Your task to perform on an android device: Turn off the flashlight Image 0: 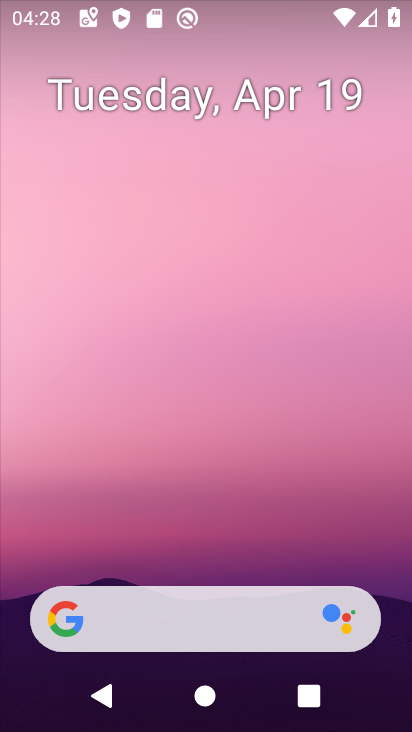
Step 0: drag from (248, 547) to (277, 196)
Your task to perform on an android device: Turn off the flashlight Image 1: 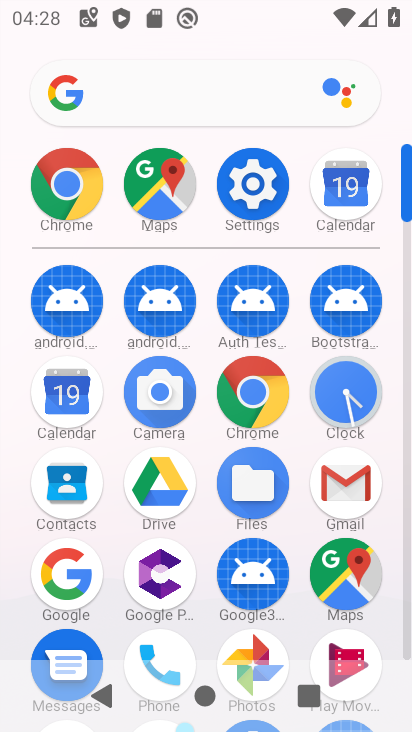
Step 1: click (260, 179)
Your task to perform on an android device: Turn off the flashlight Image 2: 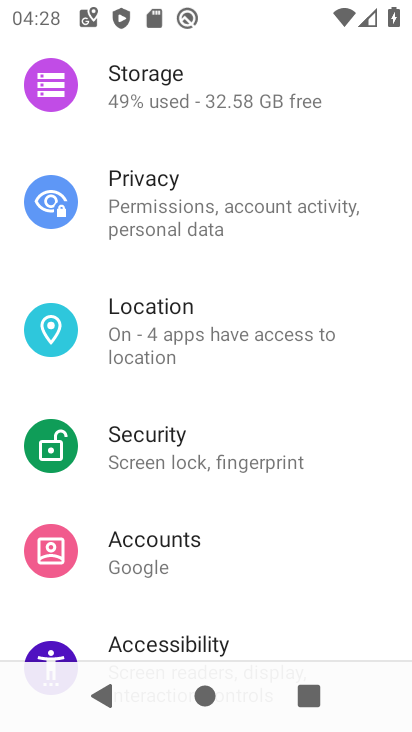
Step 2: drag from (256, 263) to (286, 404)
Your task to perform on an android device: Turn off the flashlight Image 3: 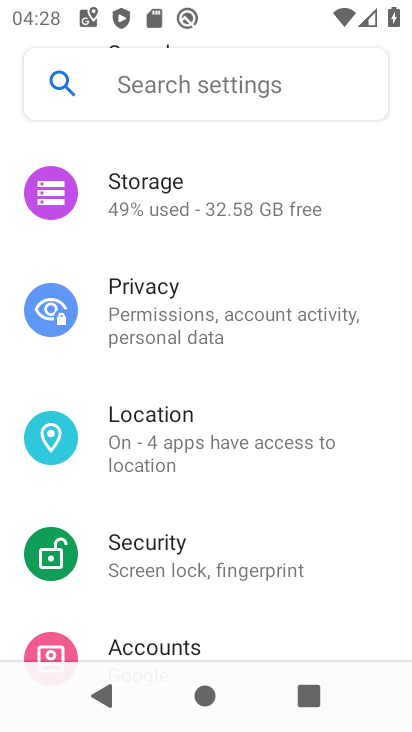
Step 3: drag from (245, 219) to (299, 334)
Your task to perform on an android device: Turn off the flashlight Image 4: 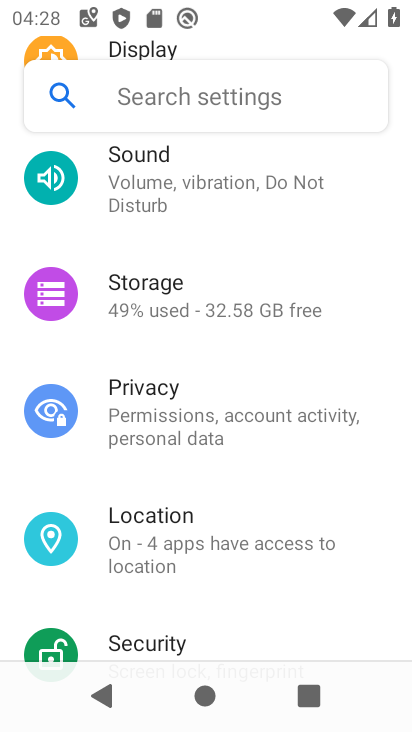
Step 4: drag from (259, 252) to (306, 365)
Your task to perform on an android device: Turn off the flashlight Image 5: 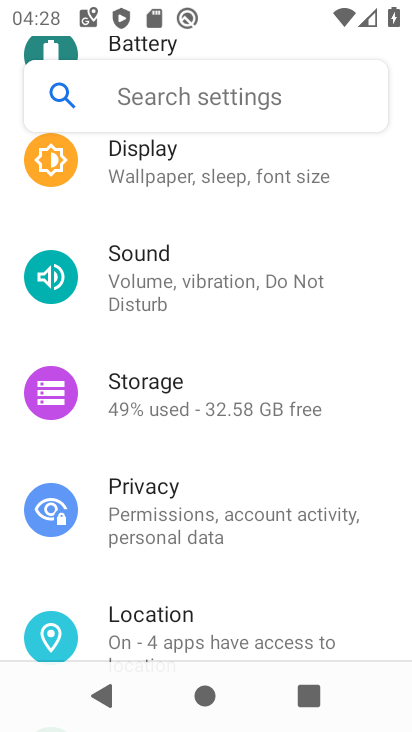
Step 5: drag from (261, 249) to (323, 379)
Your task to perform on an android device: Turn off the flashlight Image 6: 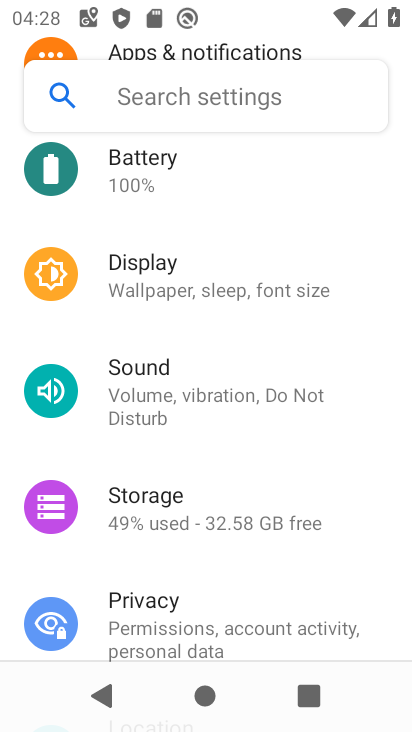
Step 6: click (245, 299)
Your task to perform on an android device: Turn off the flashlight Image 7: 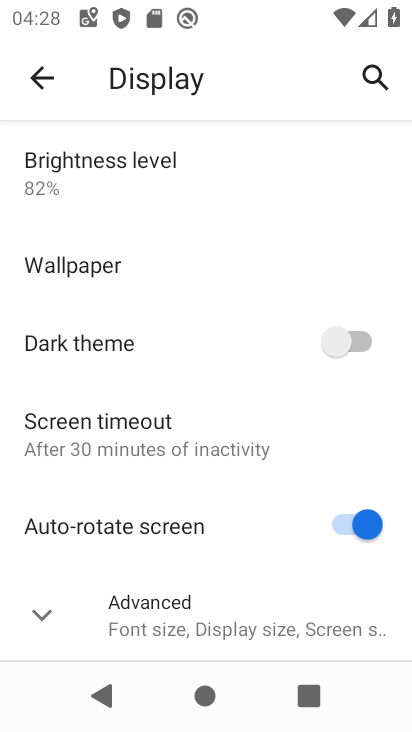
Step 7: drag from (226, 552) to (175, 372)
Your task to perform on an android device: Turn off the flashlight Image 8: 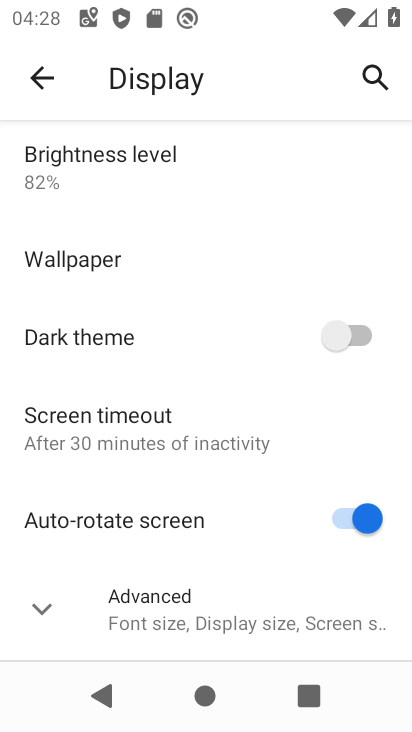
Step 8: click (130, 417)
Your task to perform on an android device: Turn off the flashlight Image 9: 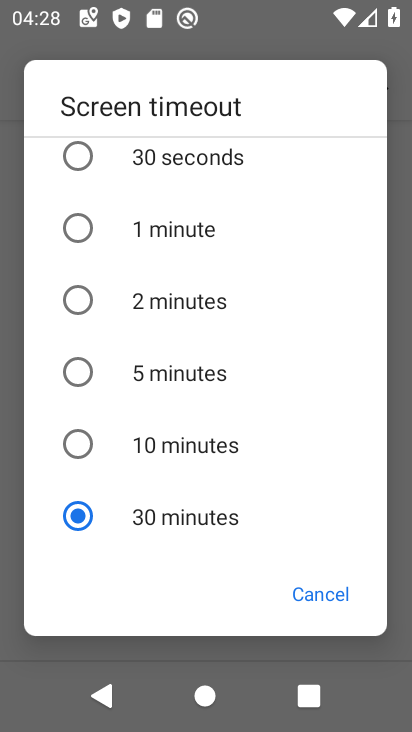
Step 9: click (318, 590)
Your task to perform on an android device: Turn off the flashlight Image 10: 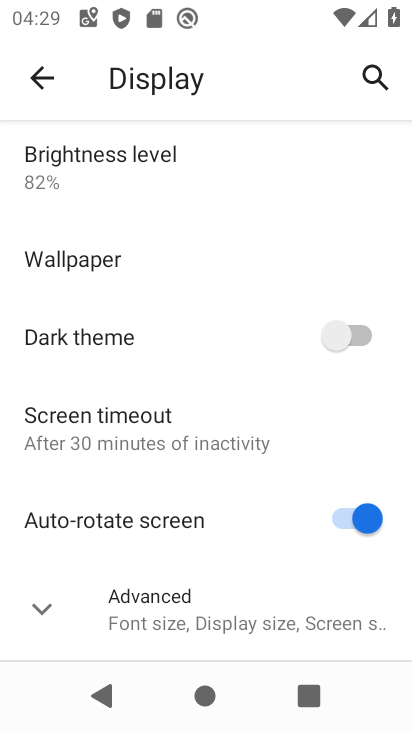
Step 10: click (165, 608)
Your task to perform on an android device: Turn off the flashlight Image 11: 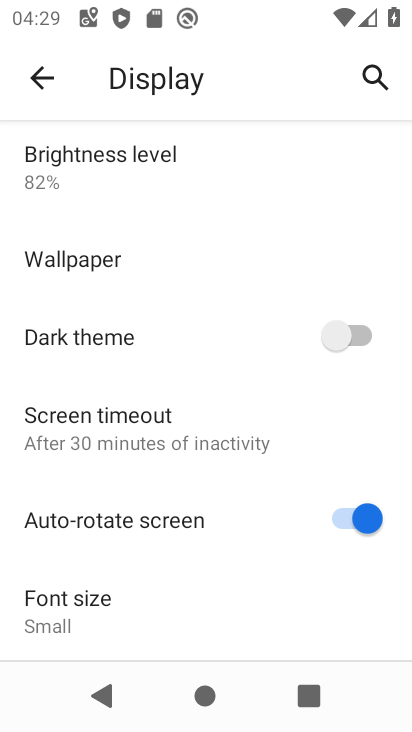
Step 11: task complete